Your task to perform on an android device: open a bookmark in the chrome app Image 0: 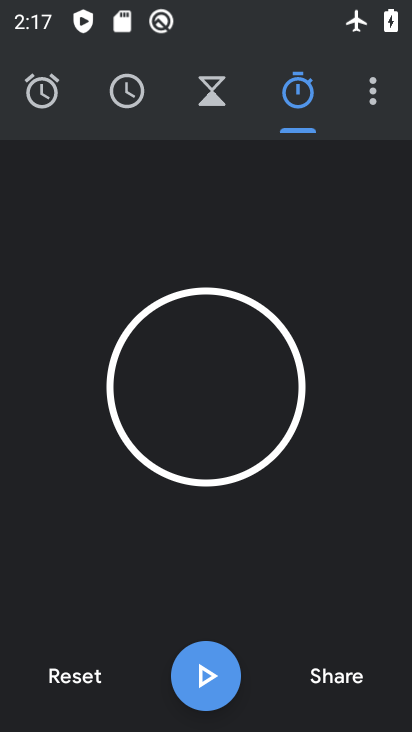
Step 0: press home button
Your task to perform on an android device: open a bookmark in the chrome app Image 1: 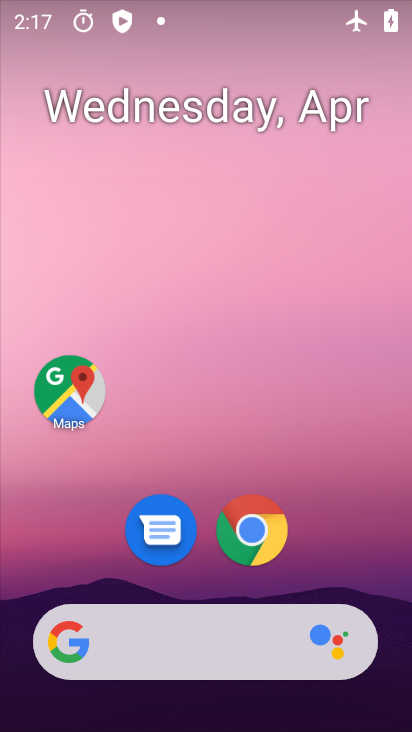
Step 1: drag from (339, 544) to (343, 123)
Your task to perform on an android device: open a bookmark in the chrome app Image 2: 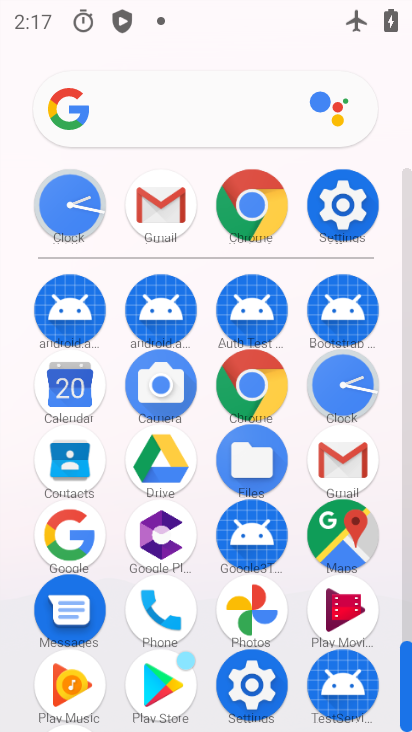
Step 2: click (255, 387)
Your task to perform on an android device: open a bookmark in the chrome app Image 3: 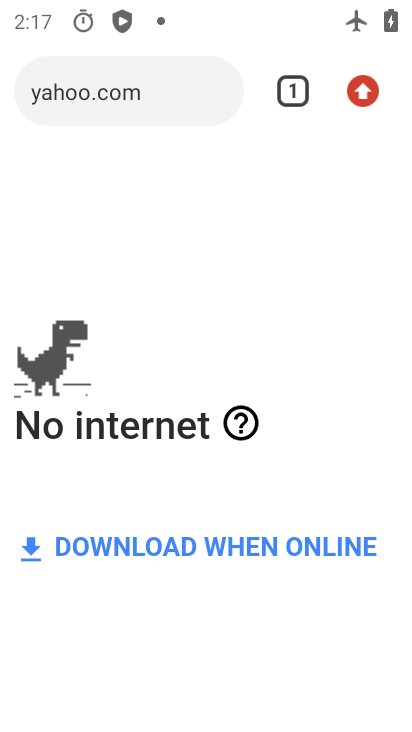
Step 3: task complete